Your task to perform on an android device: toggle javascript in the chrome app Image 0: 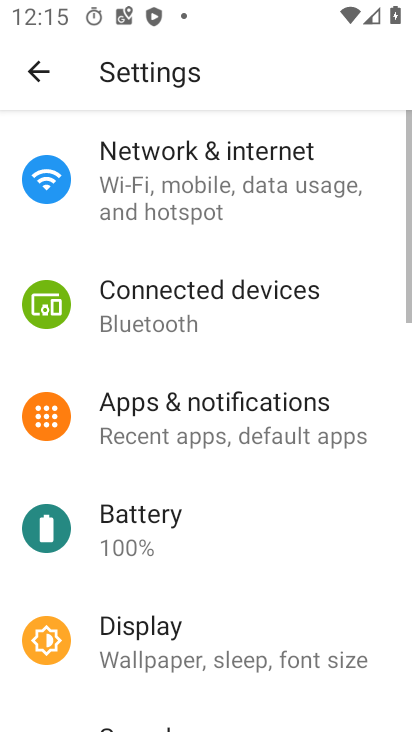
Step 0: click (23, 59)
Your task to perform on an android device: toggle javascript in the chrome app Image 1: 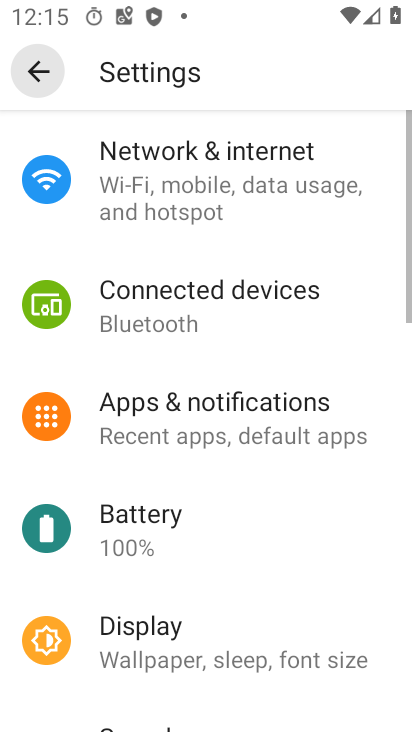
Step 1: click (37, 65)
Your task to perform on an android device: toggle javascript in the chrome app Image 2: 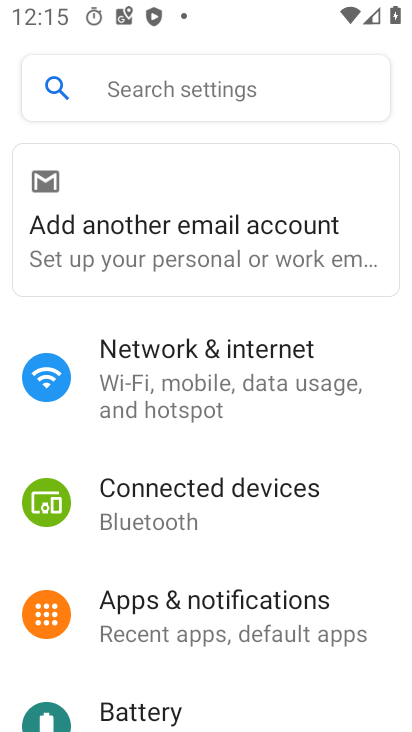
Step 2: drag from (220, 520) to (220, 234)
Your task to perform on an android device: toggle javascript in the chrome app Image 3: 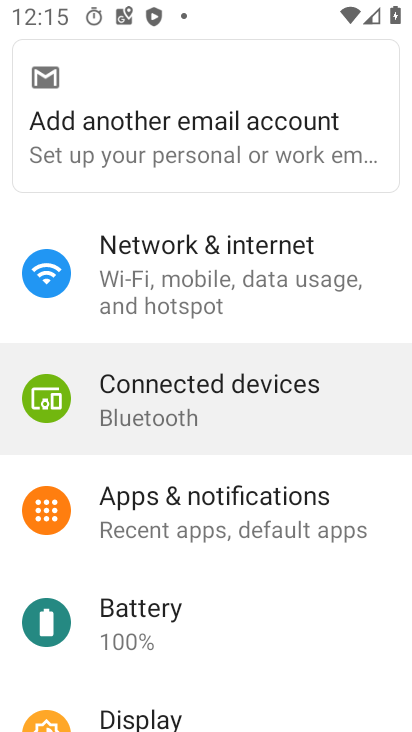
Step 3: drag from (229, 438) to (229, 287)
Your task to perform on an android device: toggle javascript in the chrome app Image 4: 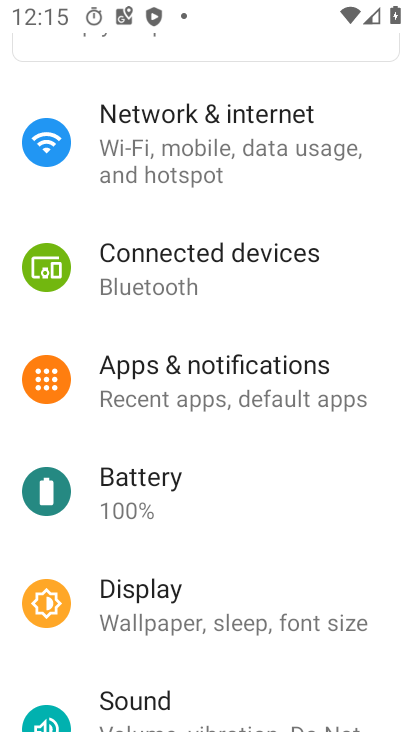
Step 4: press home button
Your task to perform on an android device: toggle javascript in the chrome app Image 5: 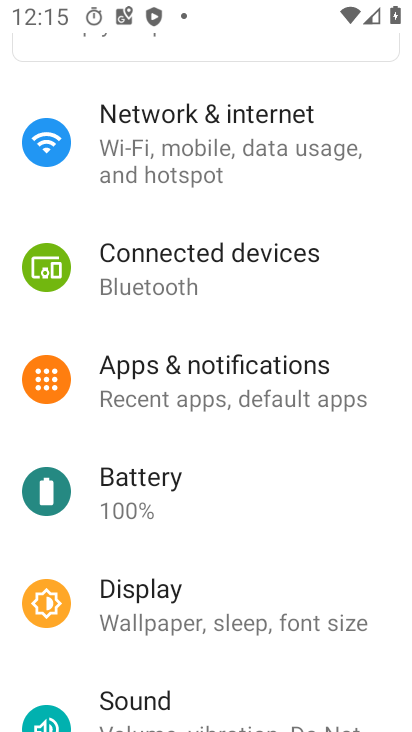
Step 5: press home button
Your task to perform on an android device: toggle javascript in the chrome app Image 6: 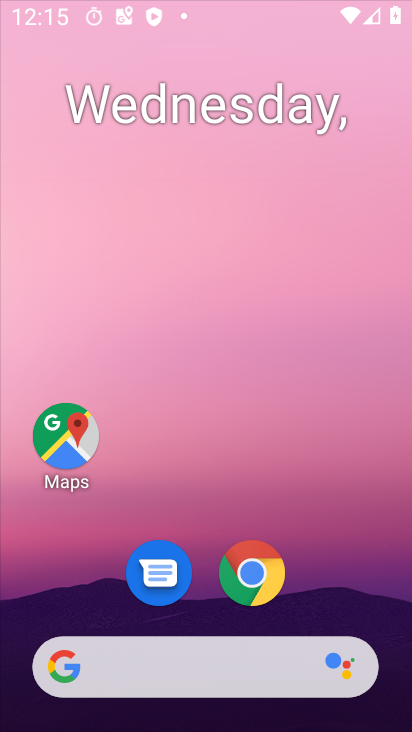
Step 6: press home button
Your task to perform on an android device: toggle javascript in the chrome app Image 7: 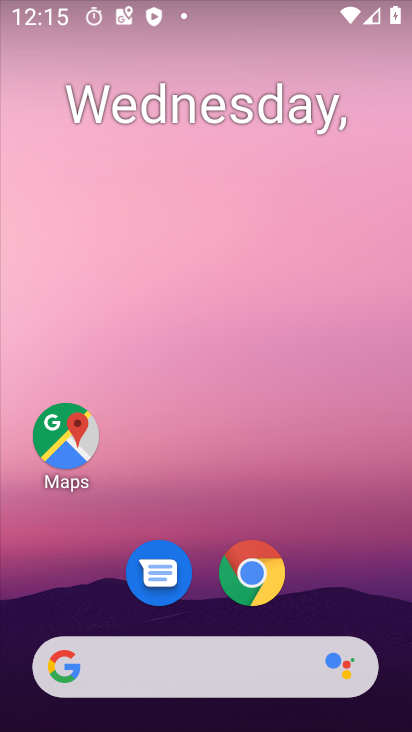
Step 7: drag from (363, 578) to (259, 254)
Your task to perform on an android device: toggle javascript in the chrome app Image 8: 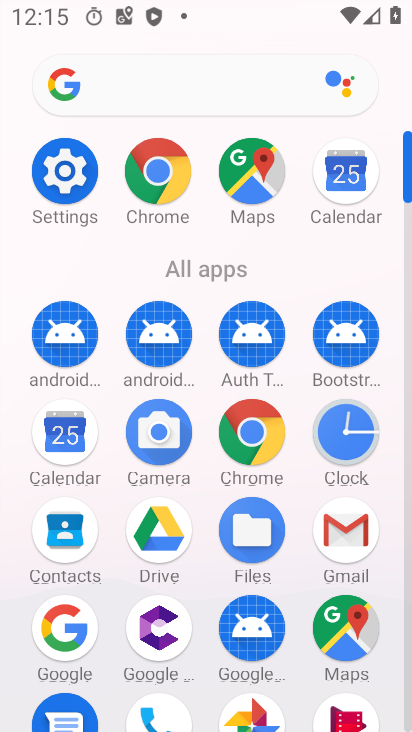
Step 8: click (157, 171)
Your task to perform on an android device: toggle javascript in the chrome app Image 9: 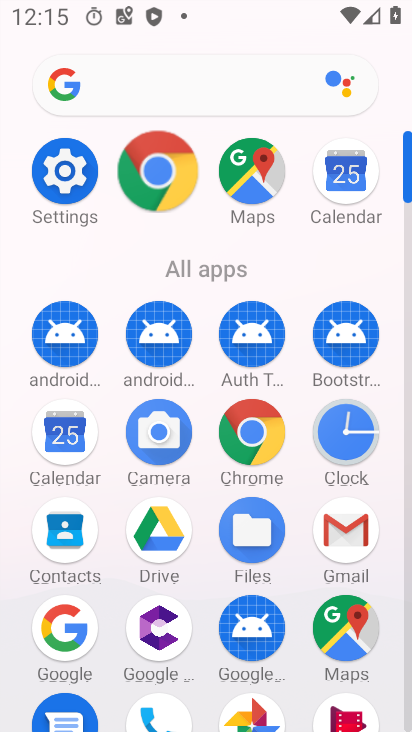
Step 9: click (157, 172)
Your task to perform on an android device: toggle javascript in the chrome app Image 10: 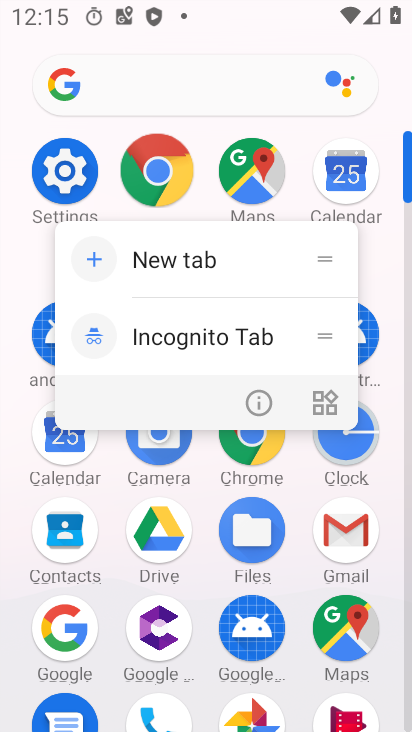
Step 10: click (158, 171)
Your task to perform on an android device: toggle javascript in the chrome app Image 11: 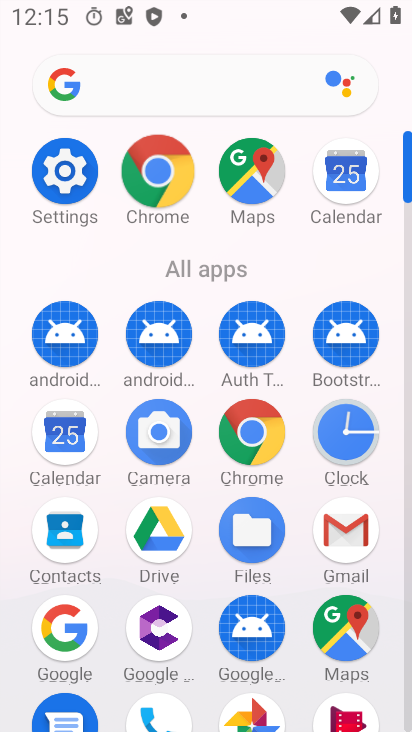
Step 11: click (159, 171)
Your task to perform on an android device: toggle javascript in the chrome app Image 12: 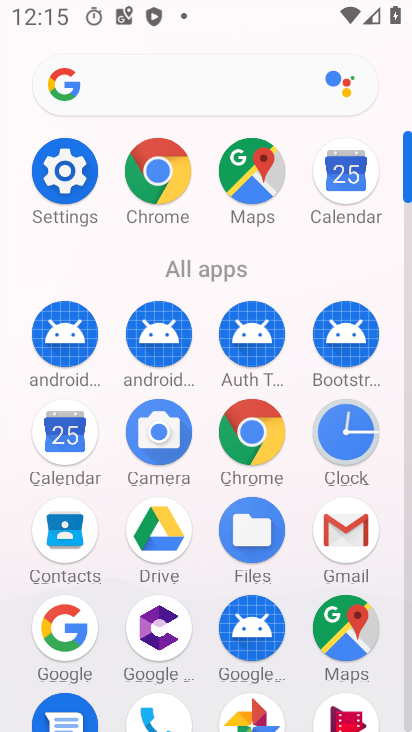
Step 12: click (163, 170)
Your task to perform on an android device: toggle javascript in the chrome app Image 13: 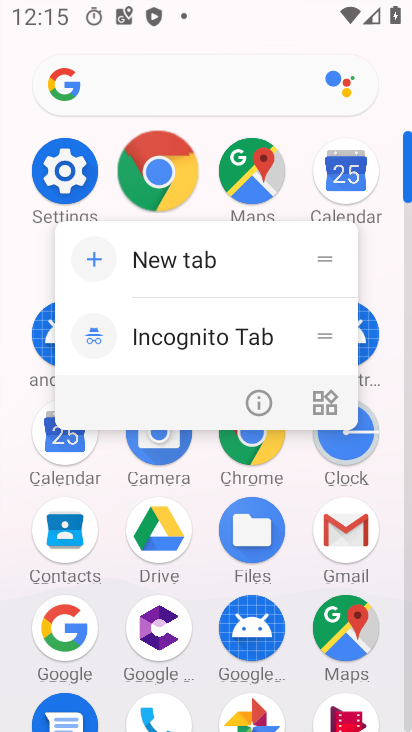
Step 13: click (165, 174)
Your task to perform on an android device: toggle javascript in the chrome app Image 14: 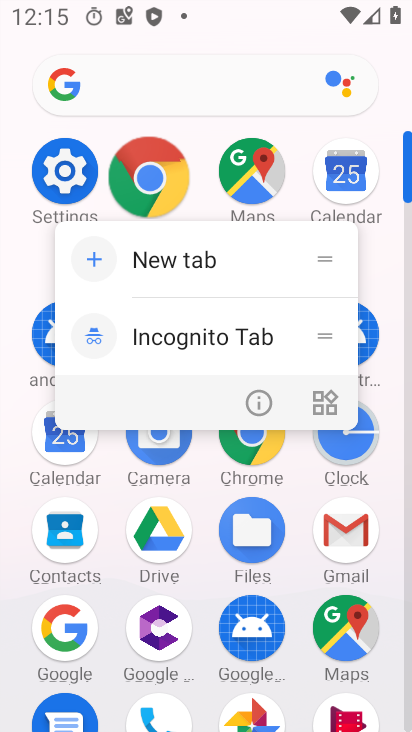
Step 14: click (162, 172)
Your task to perform on an android device: toggle javascript in the chrome app Image 15: 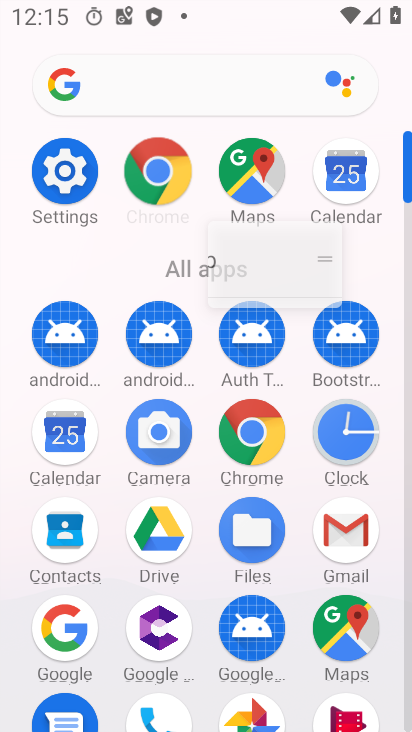
Step 15: click (163, 173)
Your task to perform on an android device: toggle javascript in the chrome app Image 16: 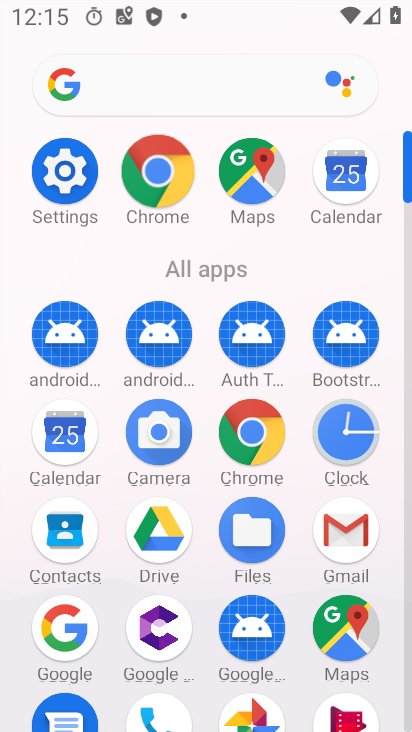
Step 16: click (162, 191)
Your task to perform on an android device: toggle javascript in the chrome app Image 17: 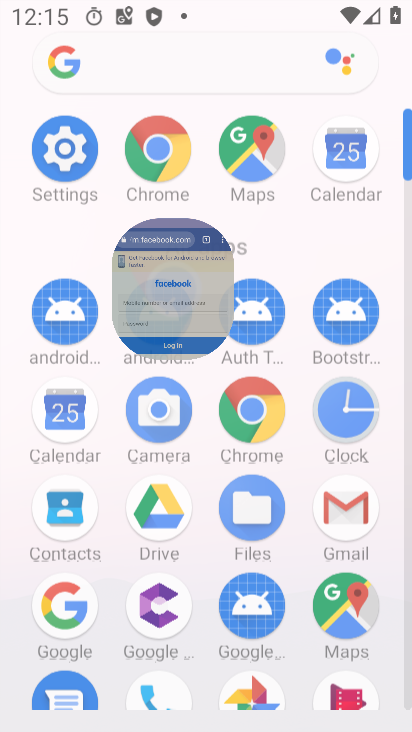
Step 17: click (165, 192)
Your task to perform on an android device: toggle javascript in the chrome app Image 18: 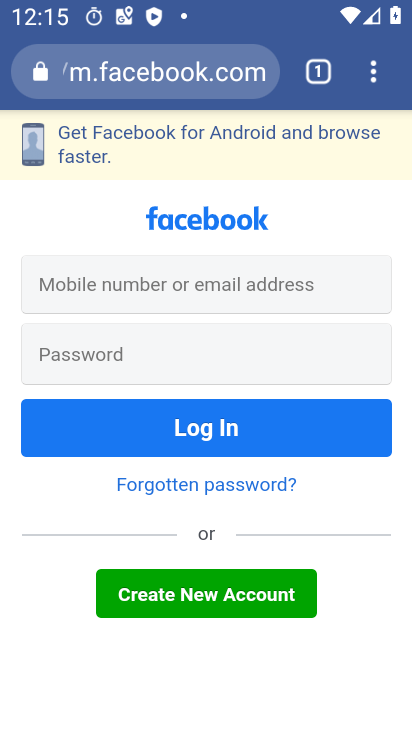
Step 18: click (166, 190)
Your task to perform on an android device: toggle javascript in the chrome app Image 19: 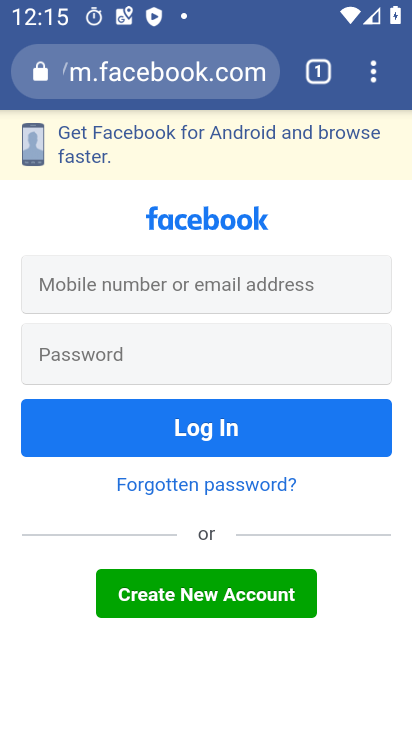
Step 19: drag from (378, 79) to (125, 569)
Your task to perform on an android device: toggle javascript in the chrome app Image 20: 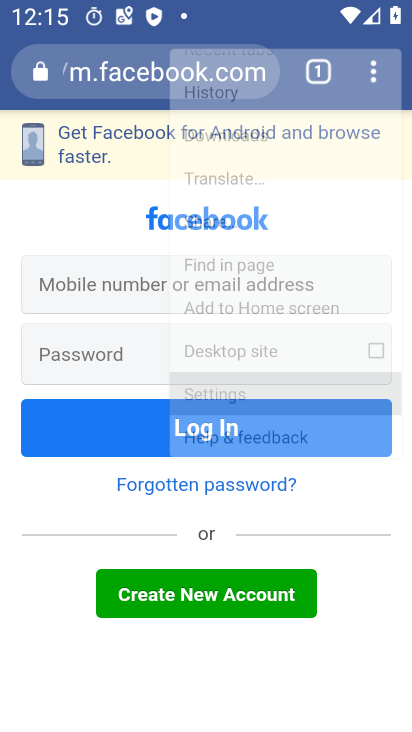
Step 20: click (126, 570)
Your task to perform on an android device: toggle javascript in the chrome app Image 21: 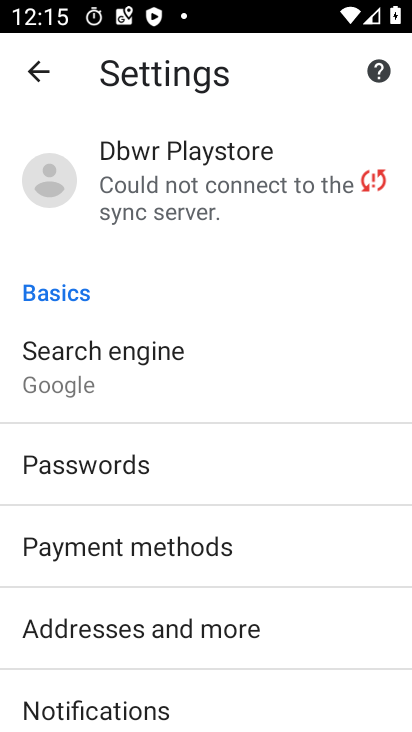
Step 21: drag from (196, 421) to (209, 118)
Your task to perform on an android device: toggle javascript in the chrome app Image 22: 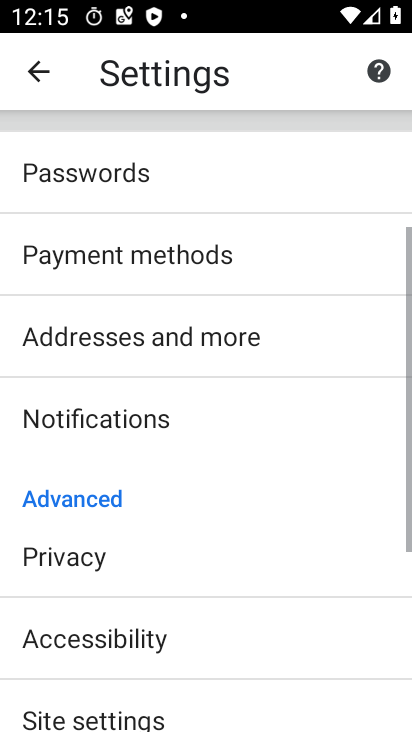
Step 22: drag from (141, 445) to (158, 73)
Your task to perform on an android device: toggle javascript in the chrome app Image 23: 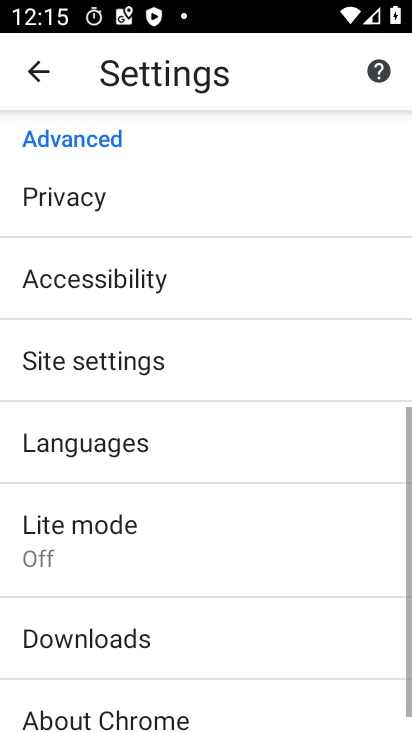
Step 23: drag from (173, 518) to (203, 202)
Your task to perform on an android device: toggle javascript in the chrome app Image 24: 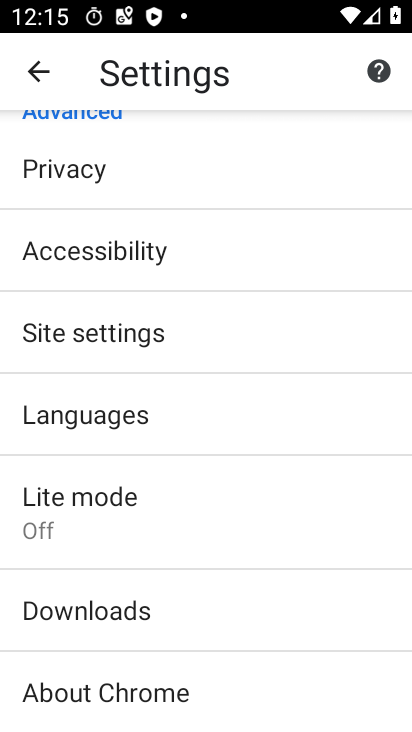
Step 24: click (86, 324)
Your task to perform on an android device: toggle javascript in the chrome app Image 25: 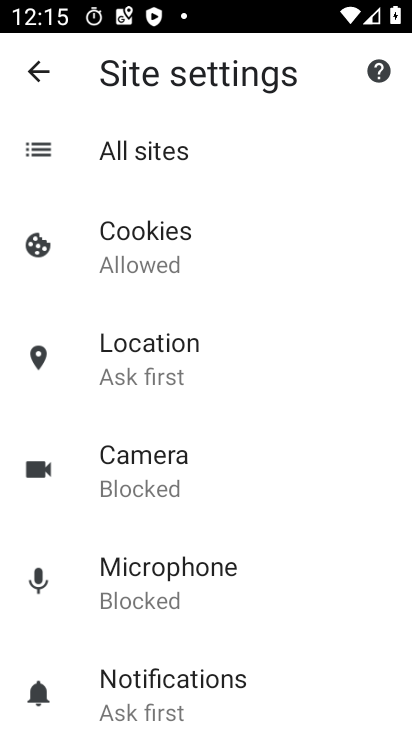
Step 25: click (219, 255)
Your task to perform on an android device: toggle javascript in the chrome app Image 26: 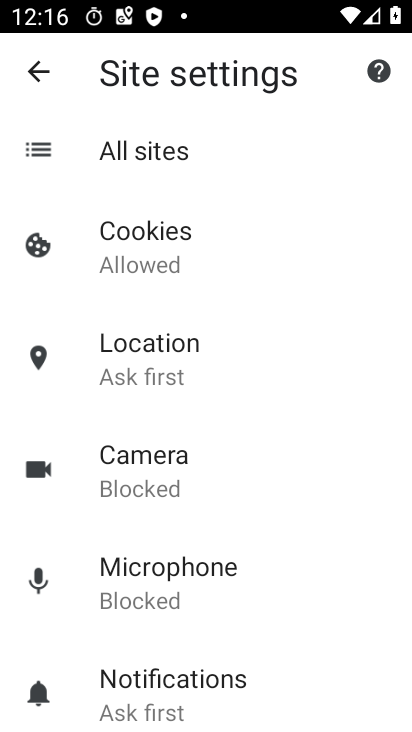
Step 26: drag from (235, 448) to (246, 207)
Your task to perform on an android device: toggle javascript in the chrome app Image 27: 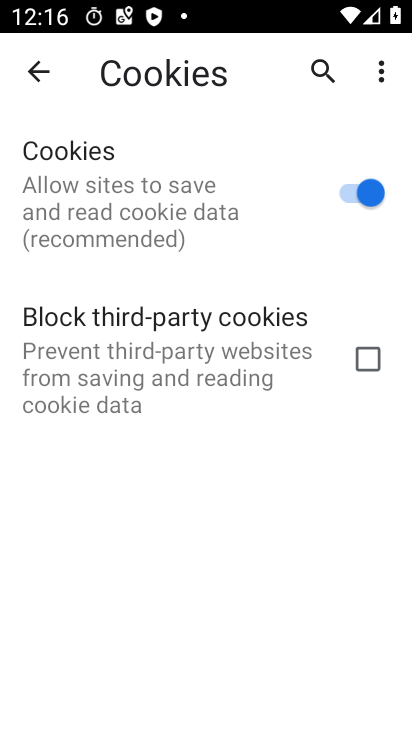
Step 27: drag from (164, 549) to (211, 123)
Your task to perform on an android device: toggle javascript in the chrome app Image 28: 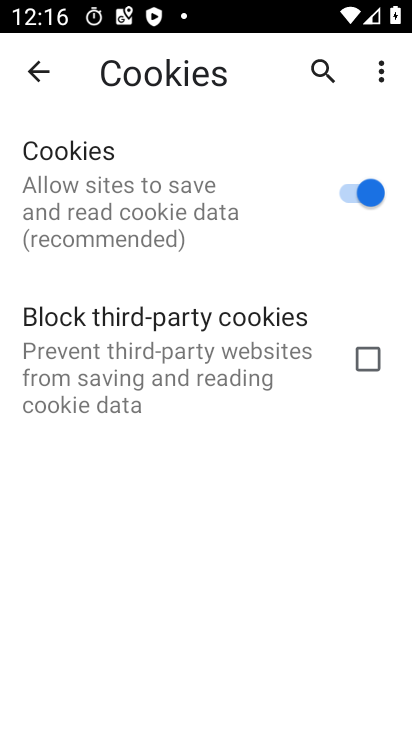
Step 28: drag from (193, 394) to (217, 237)
Your task to perform on an android device: toggle javascript in the chrome app Image 29: 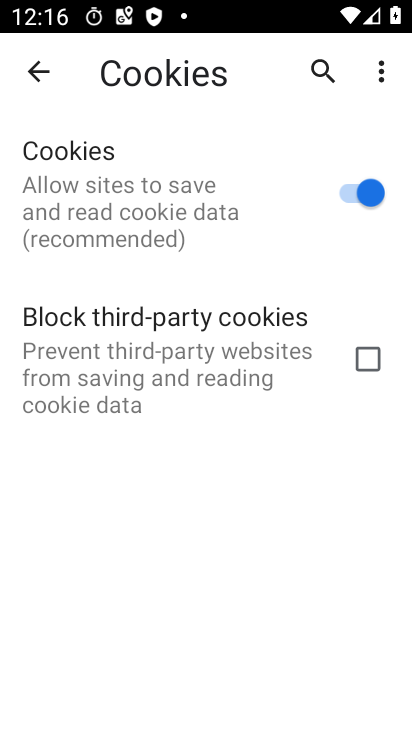
Step 29: drag from (207, 402) to (204, 247)
Your task to perform on an android device: toggle javascript in the chrome app Image 30: 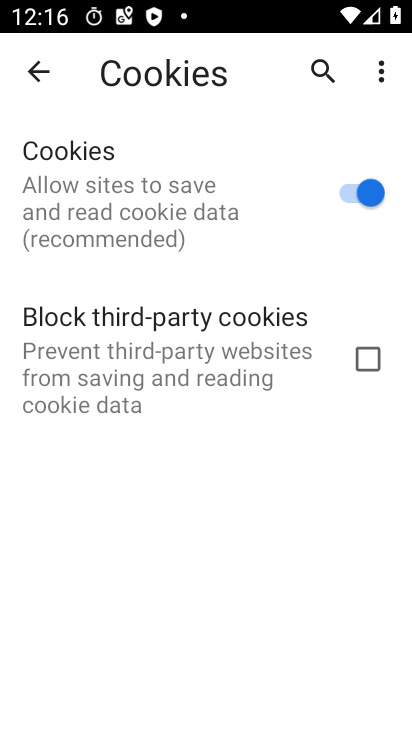
Step 30: click (32, 63)
Your task to perform on an android device: toggle javascript in the chrome app Image 31: 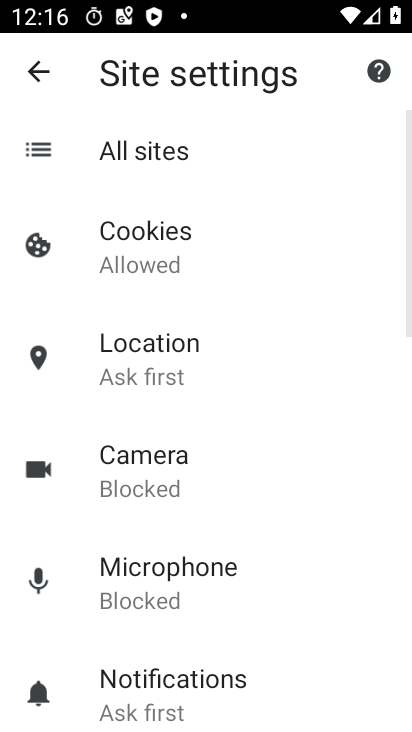
Step 31: drag from (139, 513) to (145, 186)
Your task to perform on an android device: toggle javascript in the chrome app Image 32: 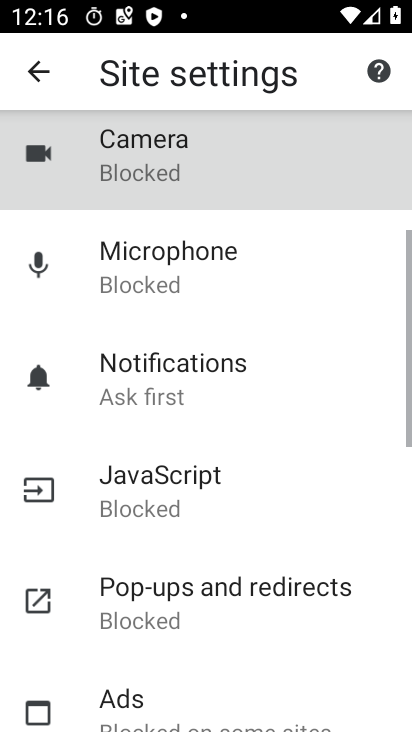
Step 32: drag from (189, 475) to (187, 74)
Your task to perform on an android device: toggle javascript in the chrome app Image 33: 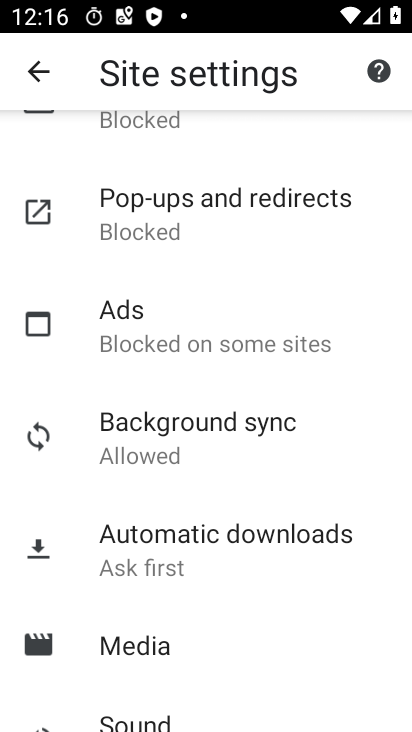
Step 33: drag from (152, 310) to (160, 610)
Your task to perform on an android device: toggle javascript in the chrome app Image 34: 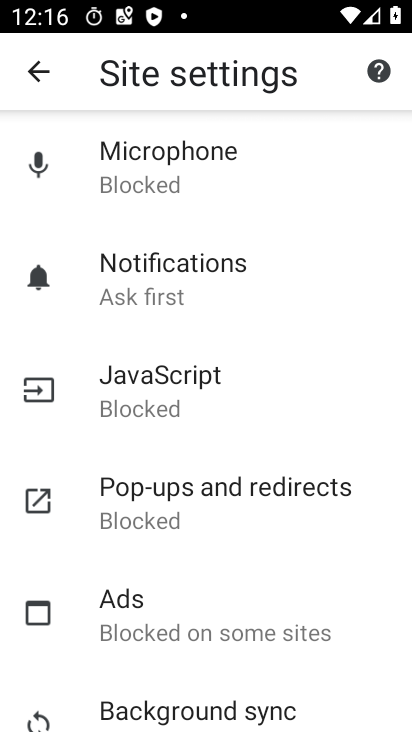
Step 34: click (159, 375)
Your task to perform on an android device: toggle javascript in the chrome app Image 35: 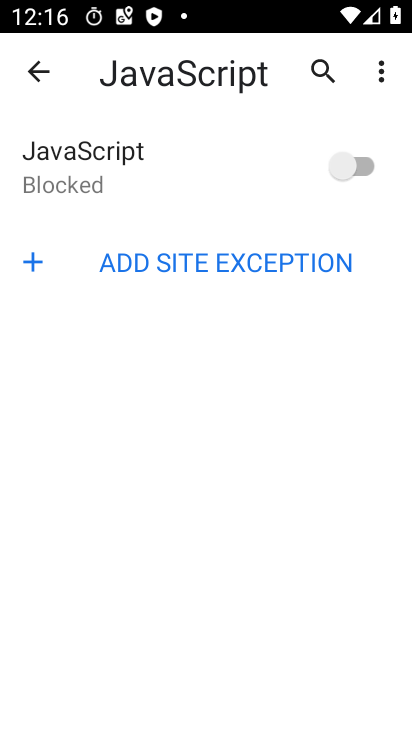
Step 35: click (339, 168)
Your task to perform on an android device: toggle javascript in the chrome app Image 36: 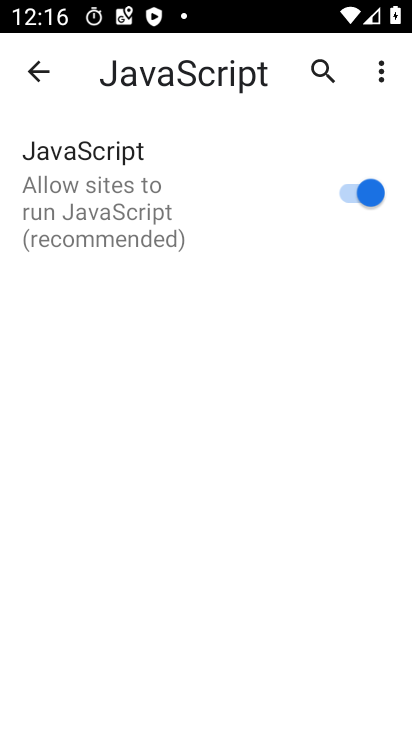
Step 36: task complete